Your task to perform on an android device: Find coffee shops on Maps Image 0: 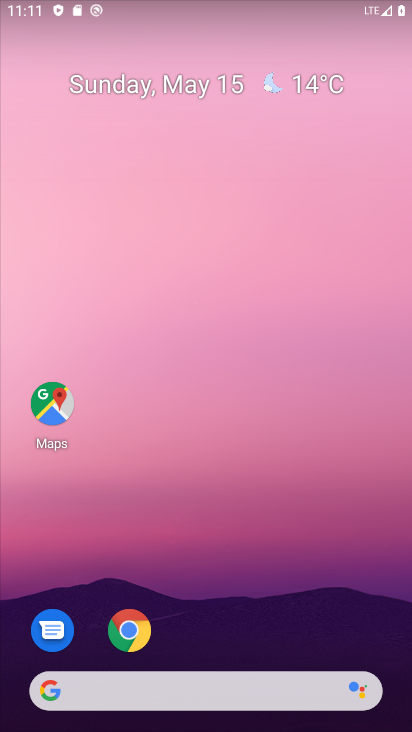
Step 0: click (45, 404)
Your task to perform on an android device: Find coffee shops on Maps Image 1: 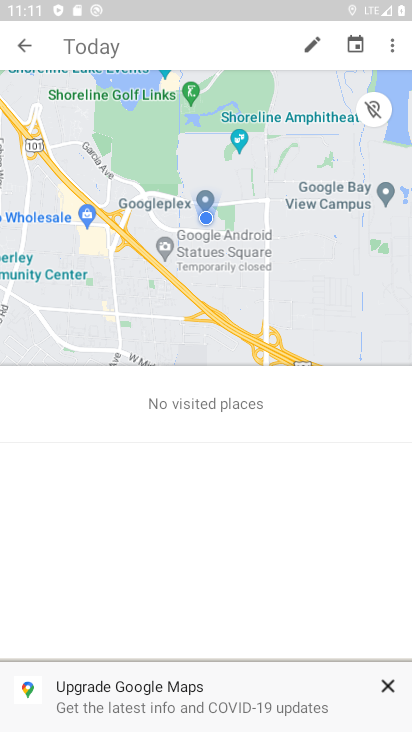
Step 1: click (7, 40)
Your task to perform on an android device: Find coffee shops on Maps Image 2: 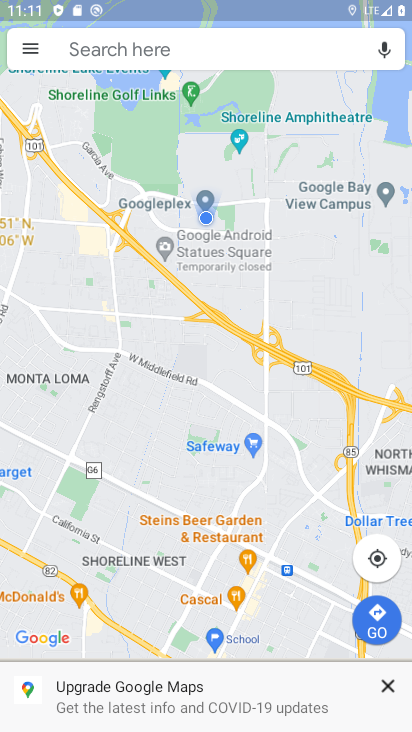
Step 2: click (175, 54)
Your task to perform on an android device: Find coffee shops on Maps Image 3: 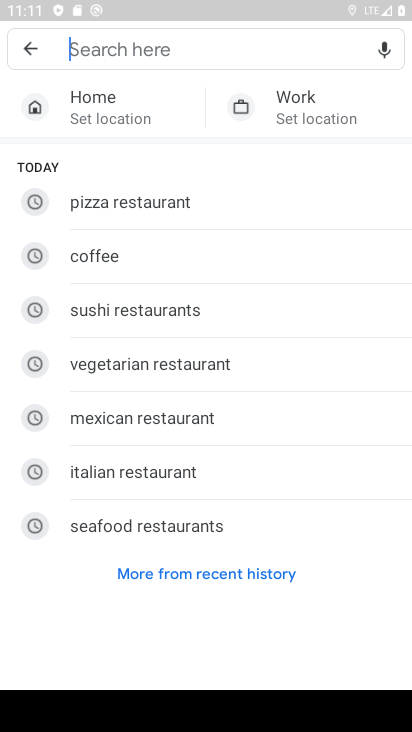
Step 3: click (65, 252)
Your task to perform on an android device: Find coffee shops on Maps Image 4: 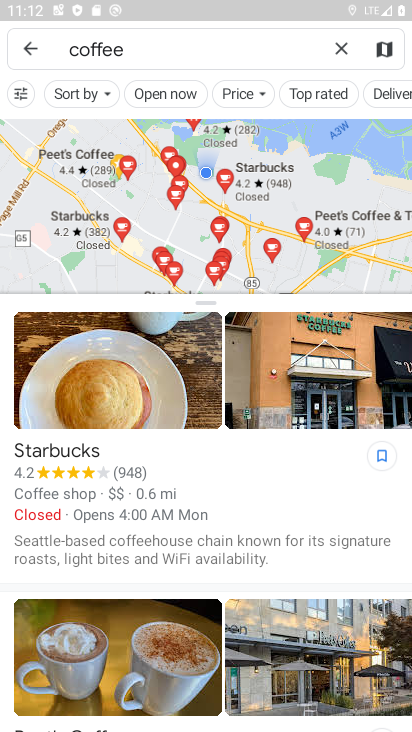
Step 4: task complete